Your task to perform on an android device: open sync settings in chrome Image 0: 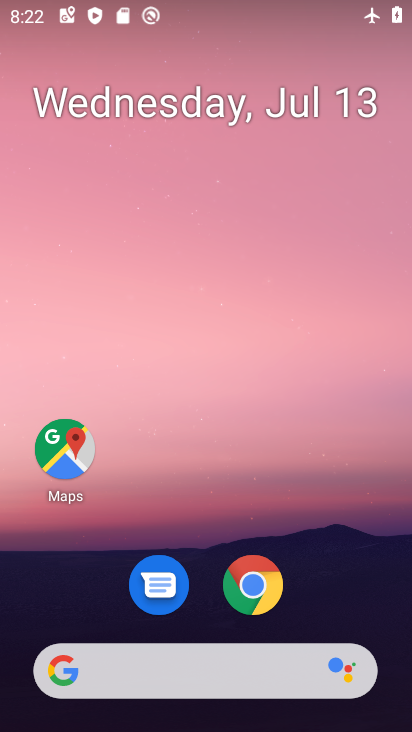
Step 0: click (265, 592)
Your task to perform on an android device: open sync settings in chrome Image 1: 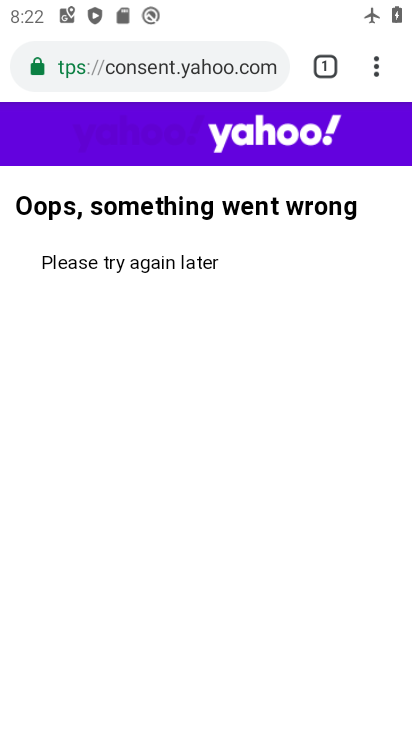
Step 1: click (375, 69)
Your task to perform on an android device: open sync settings in chrome Image 2: 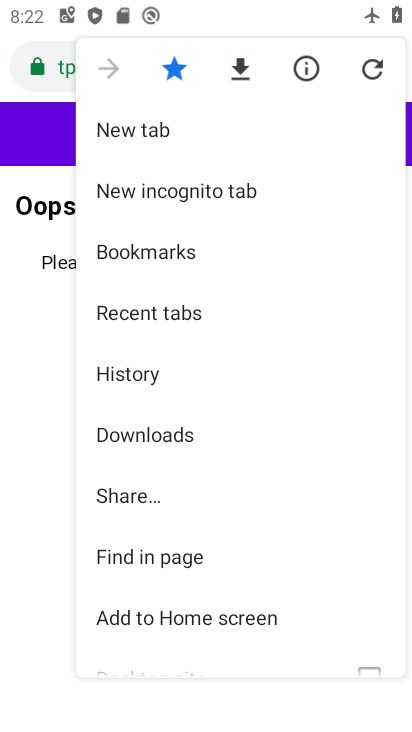
Step 2: drag from (264, 515) to (266, 202)
Your task to perform on an android device: open sync settings in chrome Image 3: 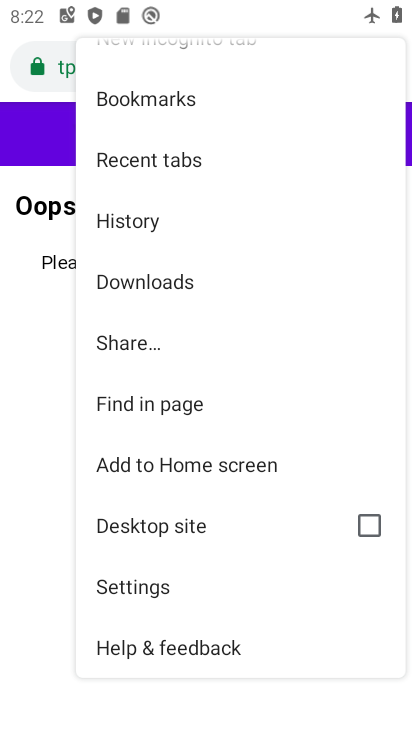
Step 3: click (137, 580)
Your task to perform on an android device: open sync settings in chrome Image 4: 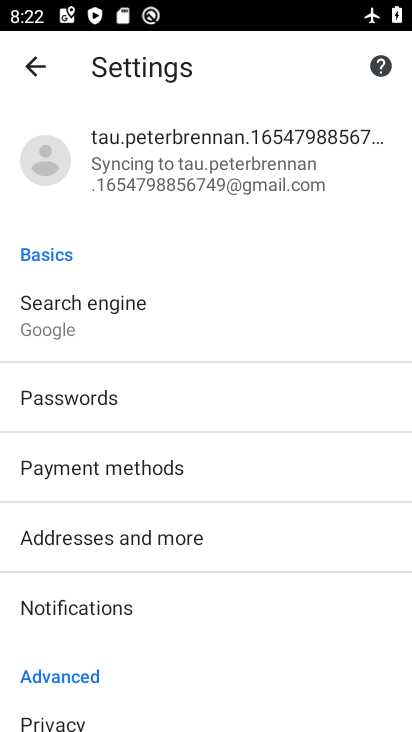
Step 4: drag from (234, 537) to (270, 171)
Your task to perform on an android device: open sync settings in chrome Image 5: 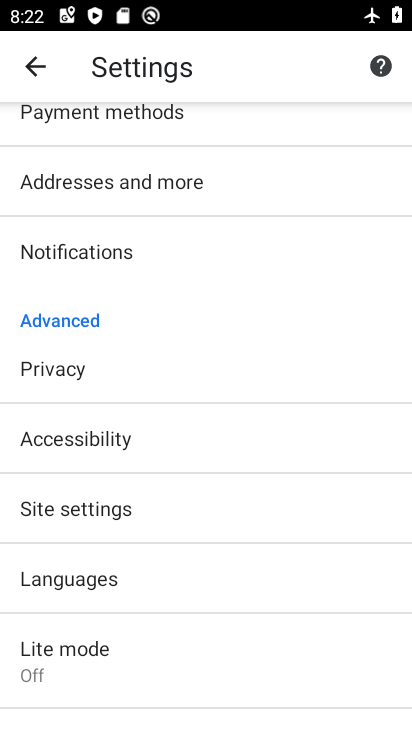
Step 5: drag from (199, 251) to (237, 577)
Your task to perform on an android device: open sync settings in chrome Image 6: 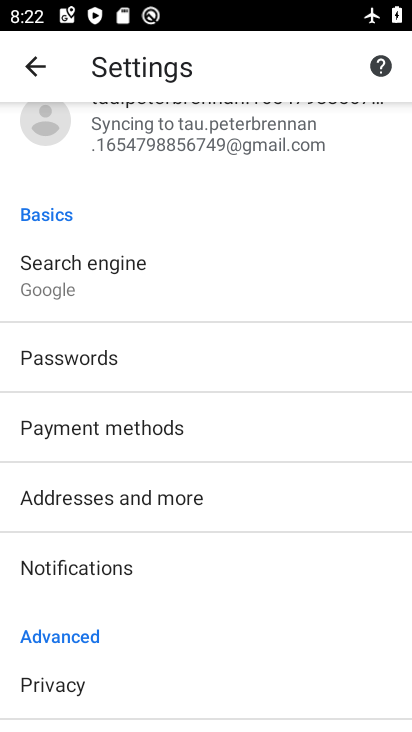
Step 6: drag from (198, 242) to (234, 405)
Your task to perform on an android device: open sync settings in chrome Image 7: 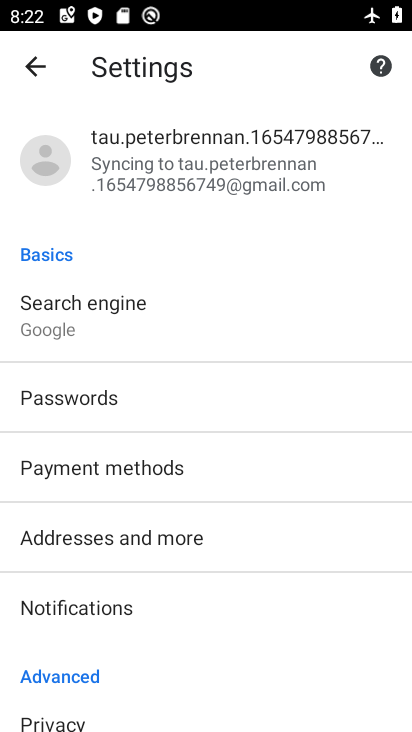
Step 7: click (199, 171)
Your task to perform on an android device: open sync settings in chrome Image 8: 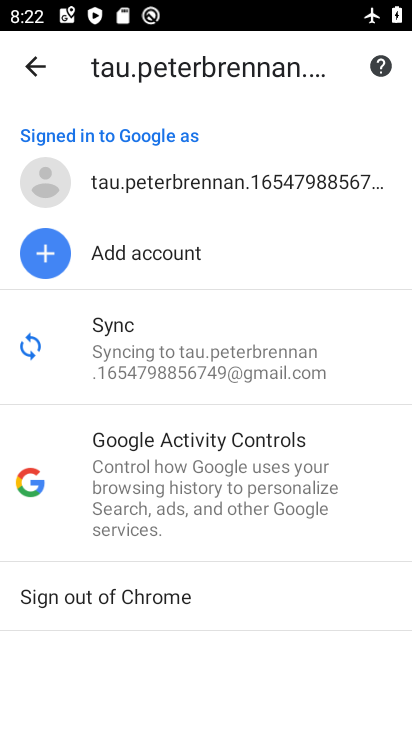
Step 8: click (193, 350)
Your task to perform on an android device: open sync settings in chrome Image 9: 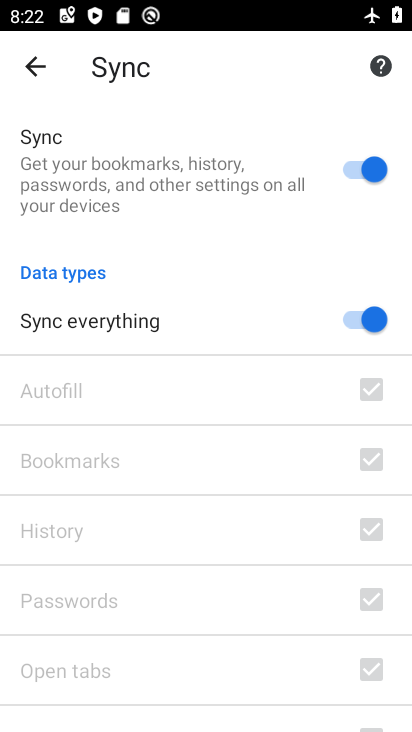
Step 9: task complete